Your task to perform on an android device: Clear the shopping cart on walmart.com. Add "razer naga" to the cart on walmart.com Image 0: 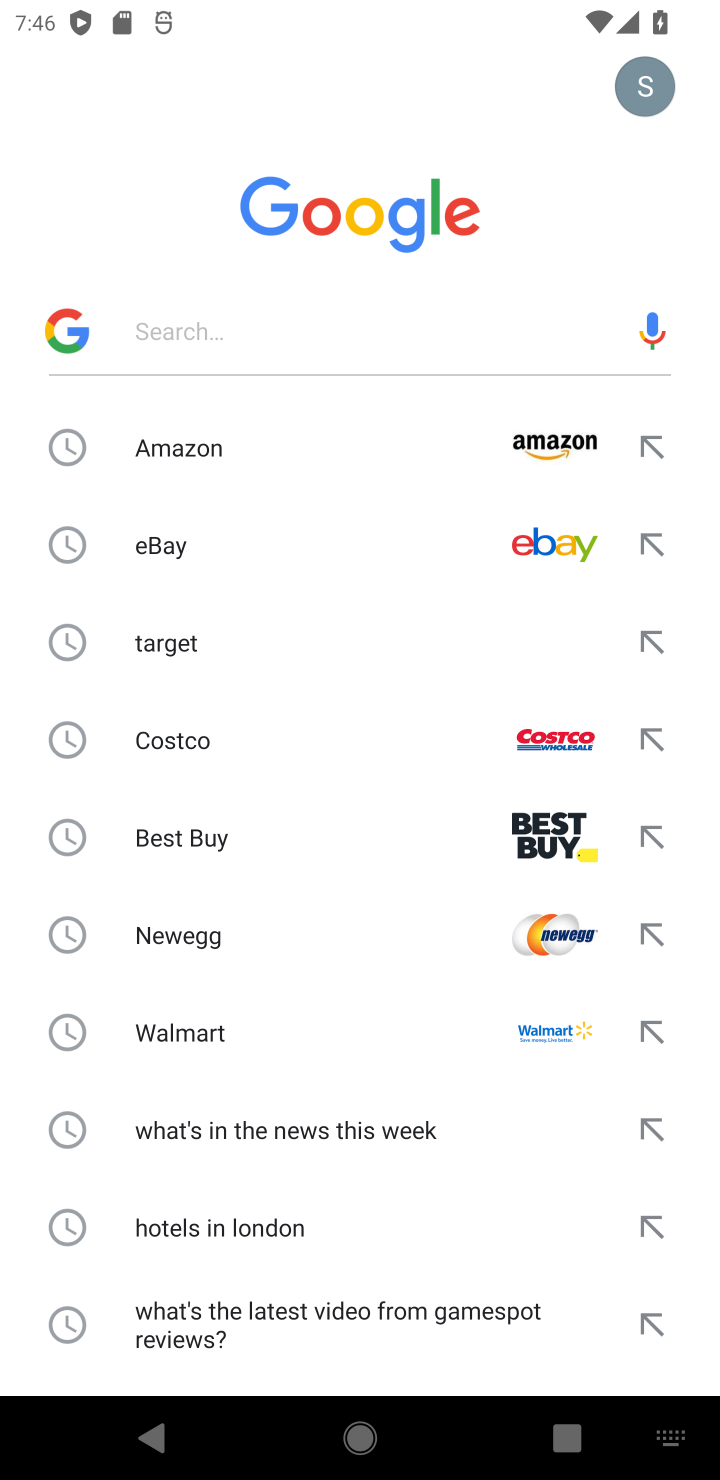
Step 0: type "walmart.com"
Your task to perform on an android device: Clear the shopping cart on walmart.com. Add "razer naga" to the cart on walmart.com Image 1: 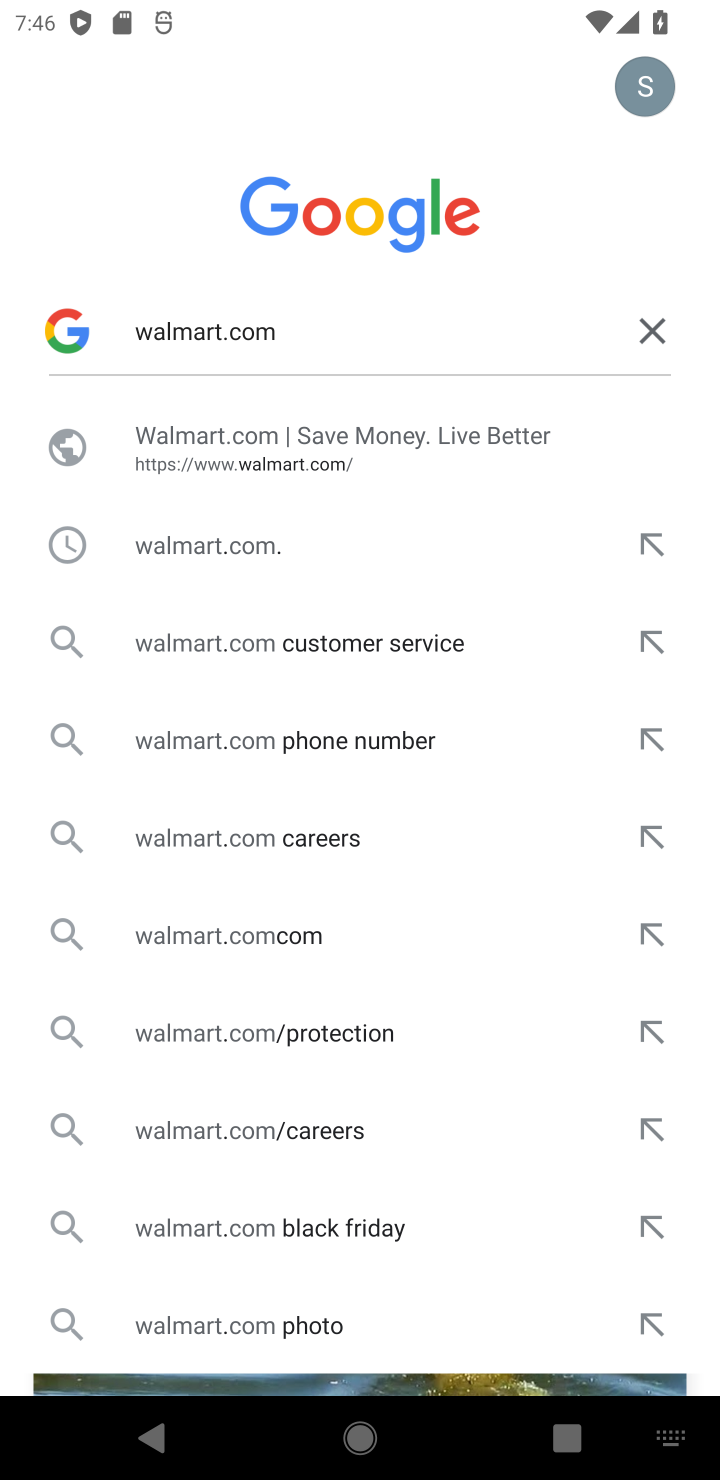
Step 1: click (225, 437)
Your task to perform on an android device: Clear the shopping cart on walmart.com. Add "razer naga" to the cart on walmart.com Image 2: 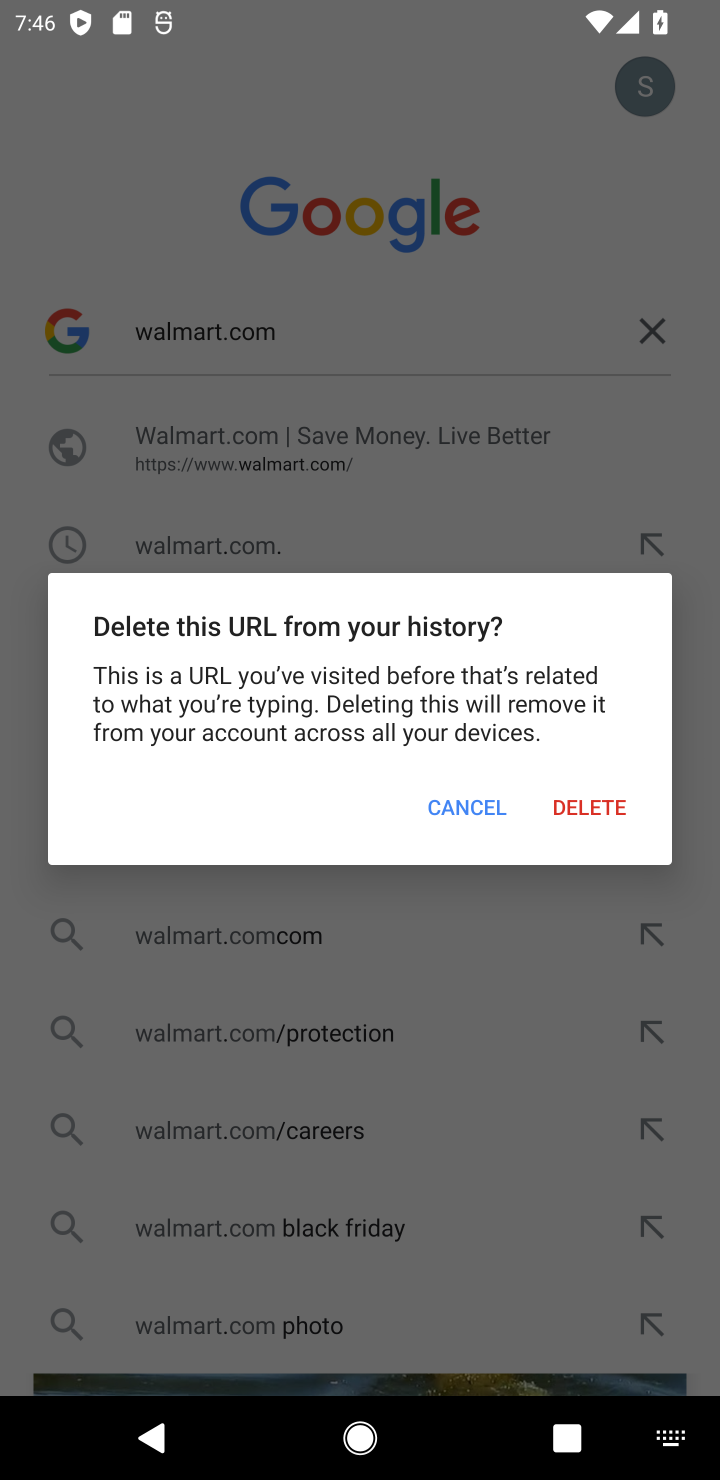
Step 2: click (465, 820)
Your task to perform on an android device: Clear the shopping cart on walmart.com. Add "razer naga" to the cart on walmart.com Image 3: 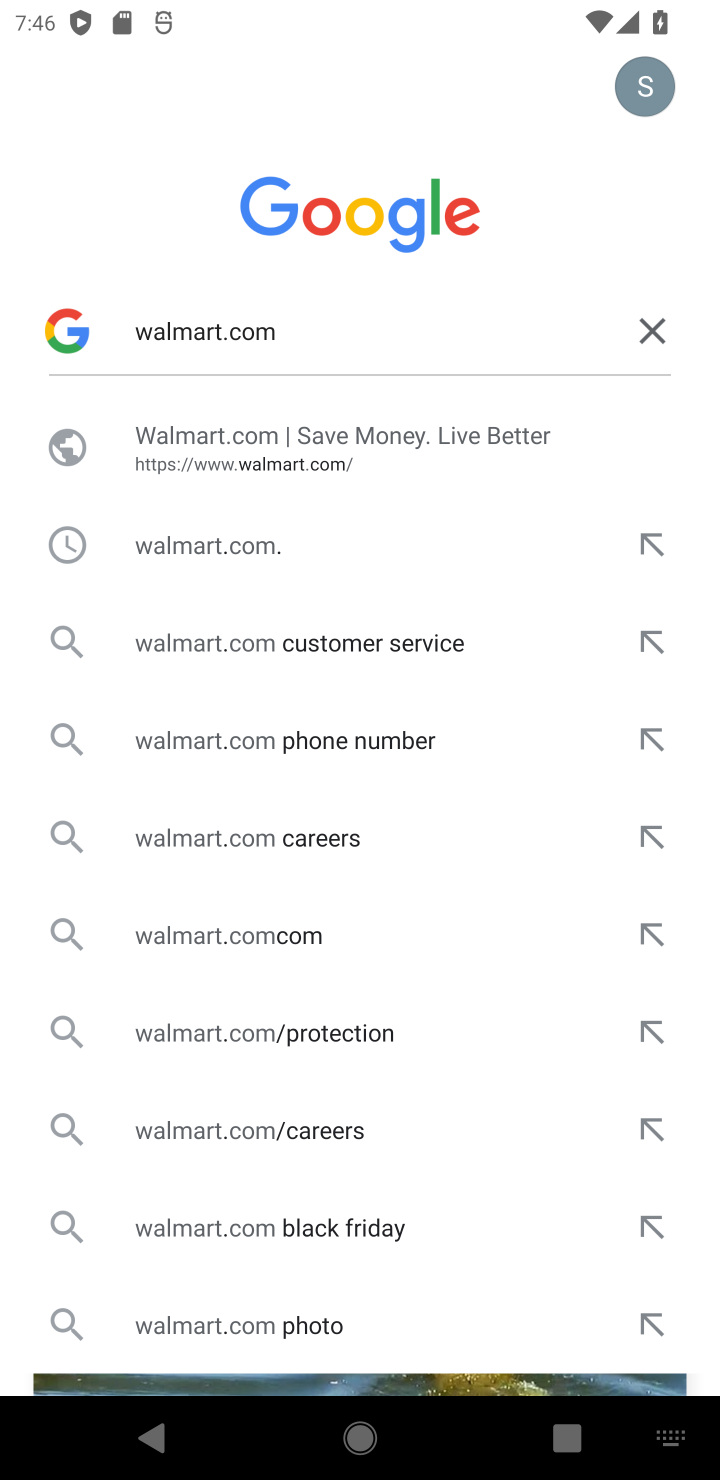
Step 3: click (171, 463)
Your task to perform on an android device: Clear the shopping cart on walmart.com. Add "razer naga" to the cart on walmart.com Image 4: 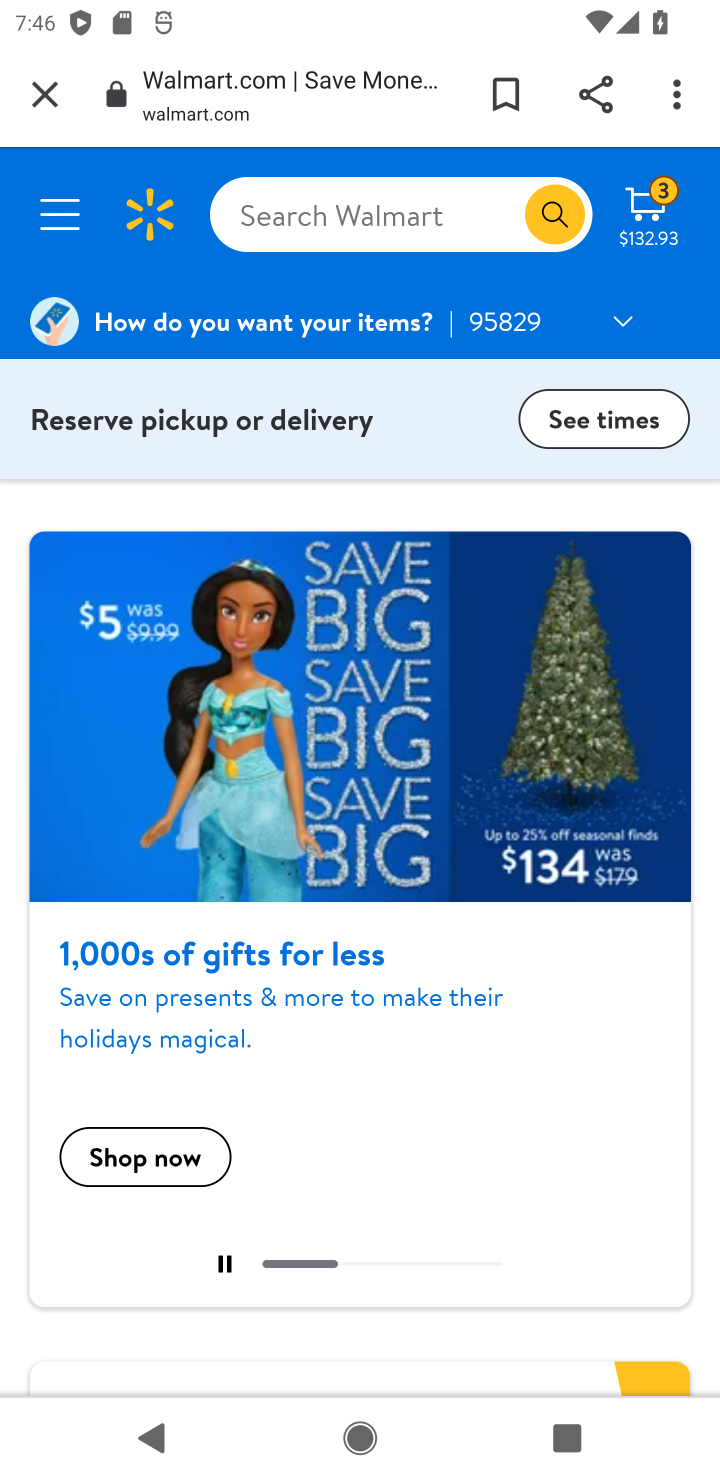
Step 4: click (643, 215)
Your task to perform on an android device: Clear the shopping cart on walmart.com. Add "razer naga" to the cart on walmart.com Image 5: 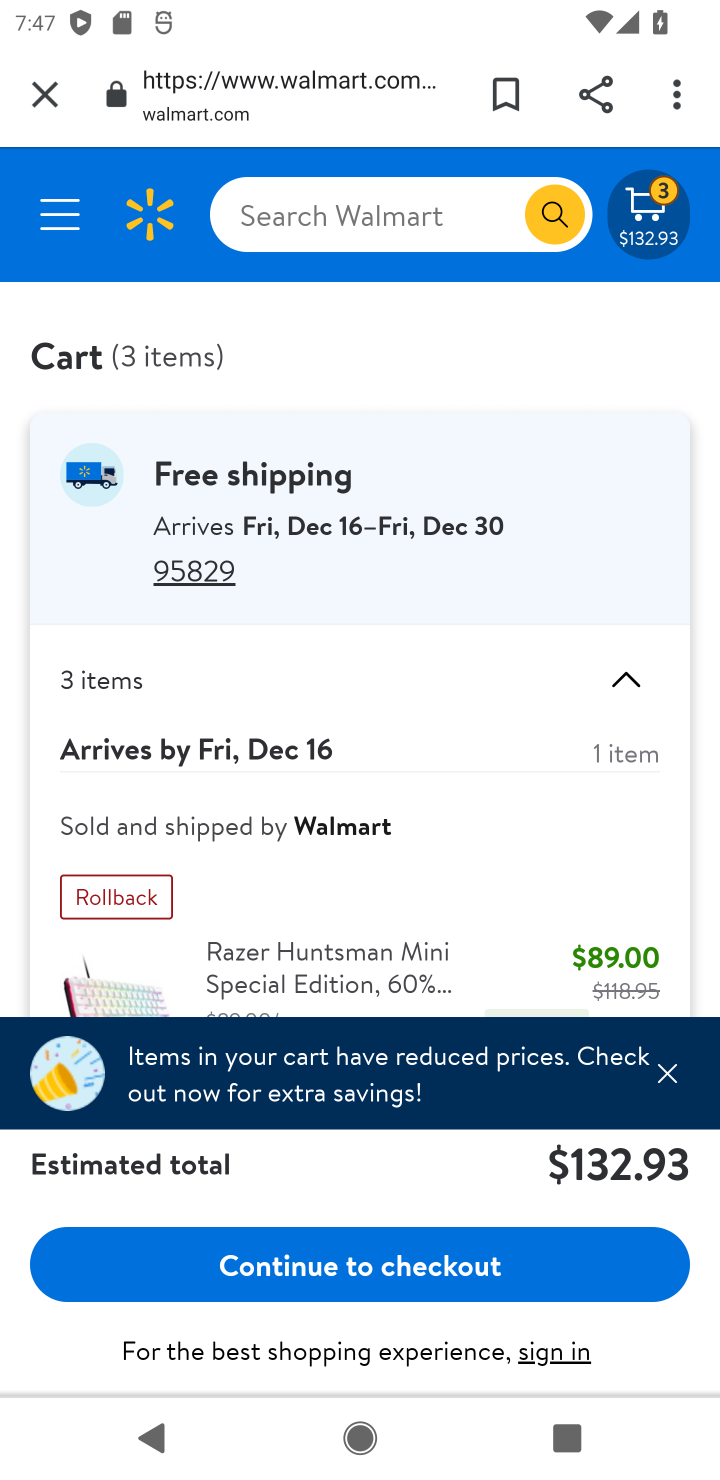
Step 5: drag from (360, 783) to (356, 305)
Your task to perform on an android device: Clear the shopping cart on walmart.com. Add "razer naga" to the cart on walmart.com Image 6: 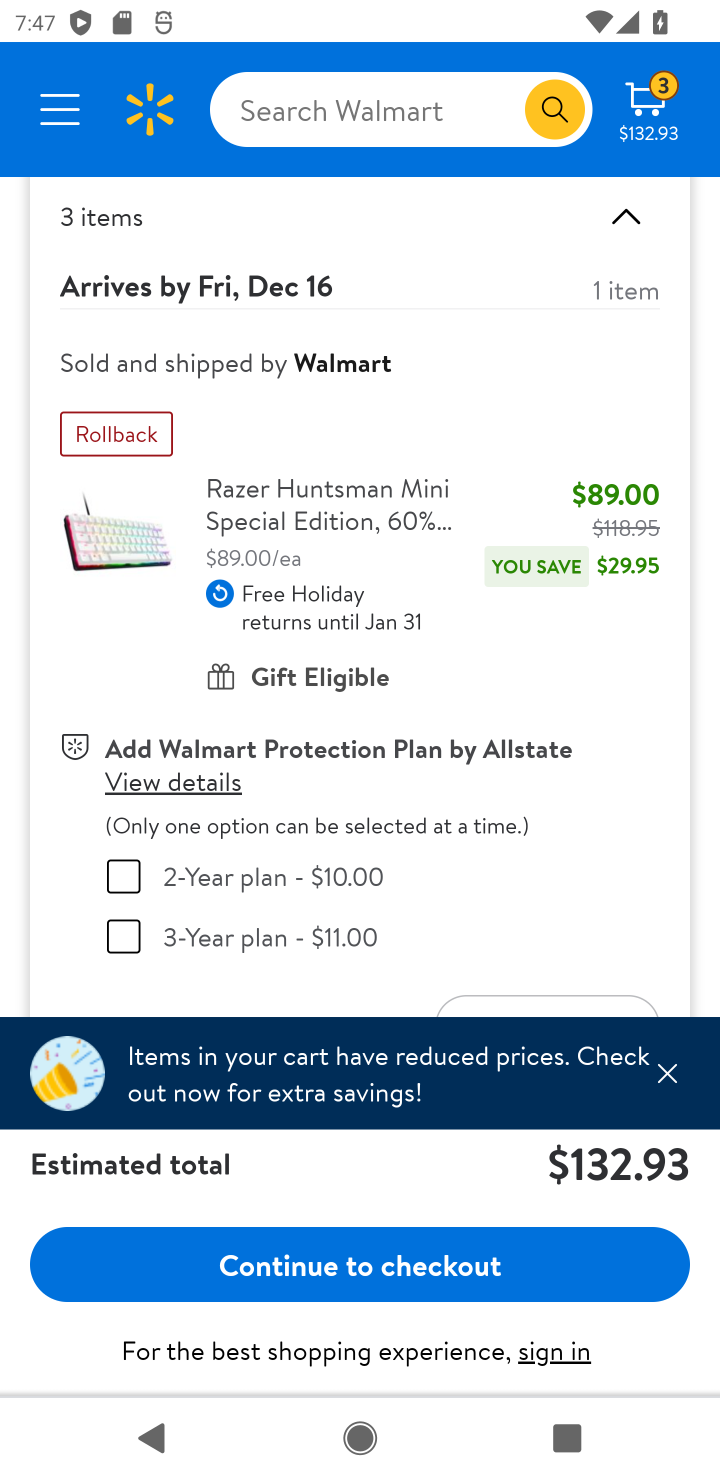
Step 6: drag from (321, 657) to (325, 228)
Your task to perform on an android device: Clear the shopping cart on walmart.com. Add "razer naga" to the cart on walmart.com Image 7: 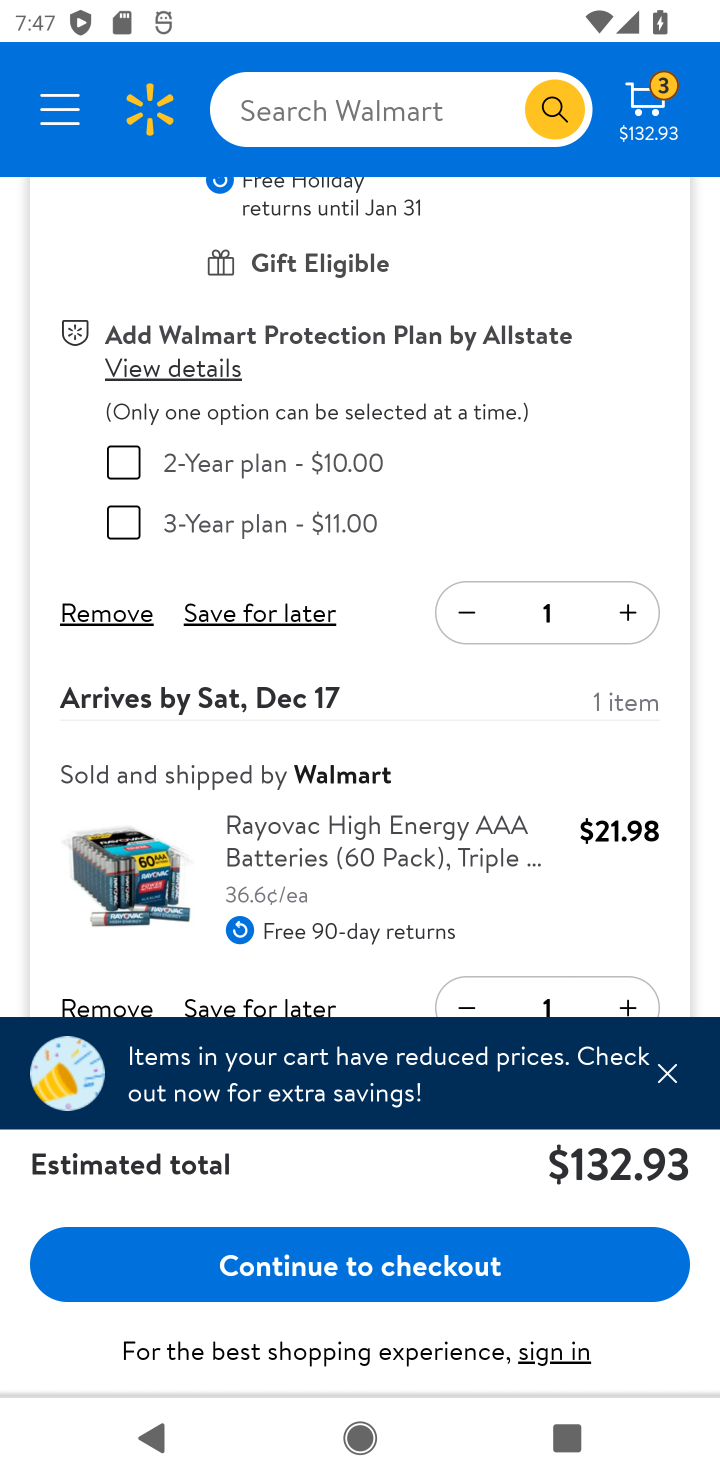
Step 7: click (87, 619)
Your task to perform on an android device: Clear the shopping cart on walmart.com. Add "razer naga" to the cart on walmart.com Image 8: 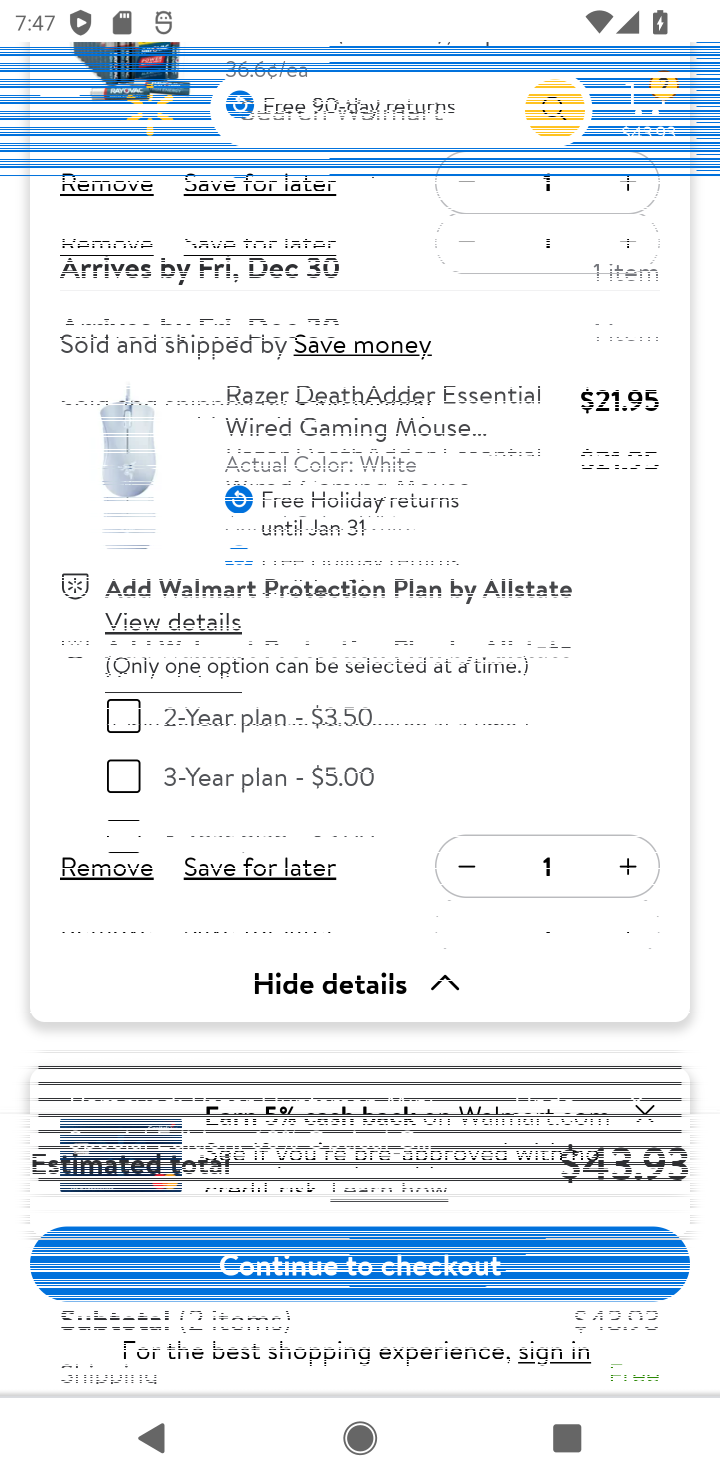
Step 8: click (106, 873)
Your task to perform on an android device: Clear the shopping cart on walmart.com. Add "razer naga" to the cart on walmart.com Image 9: 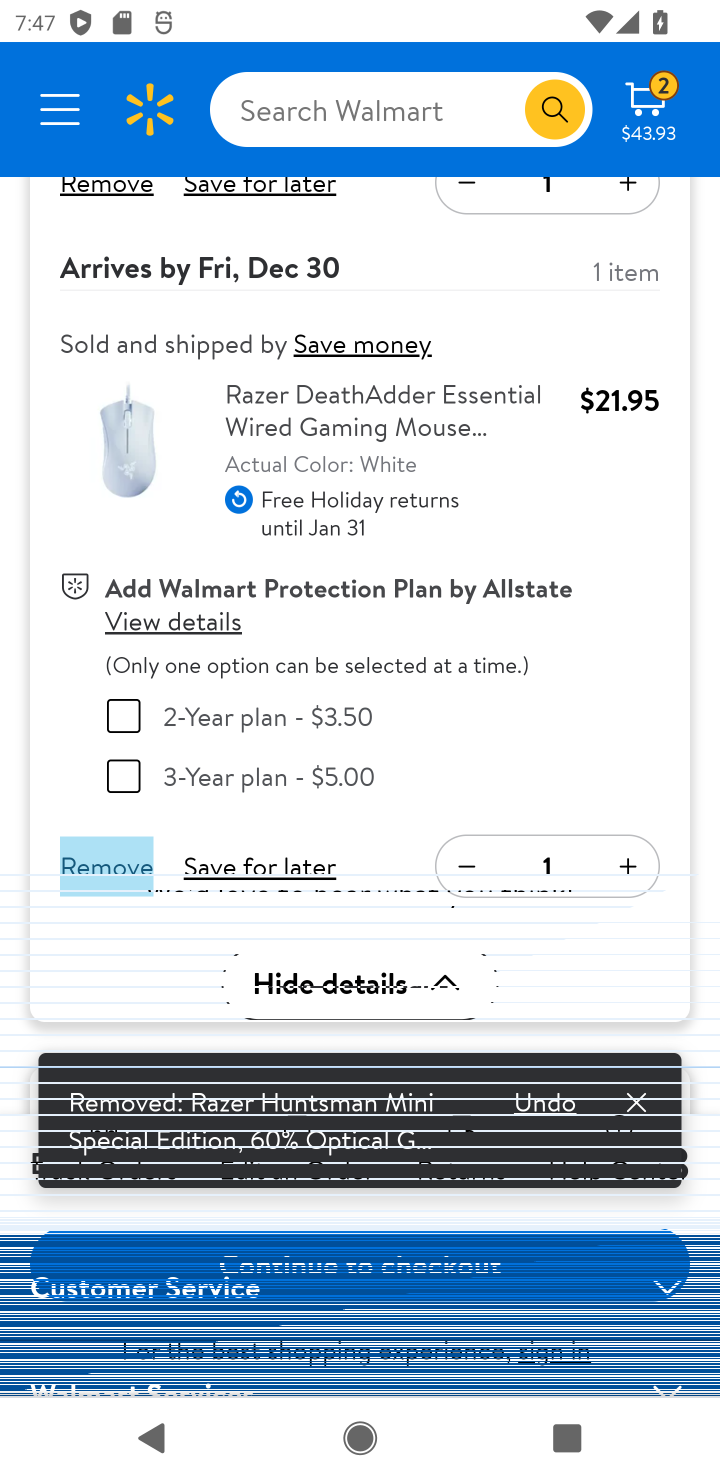
Step 9: drag from (284, 821) to (300, 424)
Your task to perform on an android device: Clear the shopping cart on walmart.com. Add "razer naga" to the cart on walmart.com Image 10: 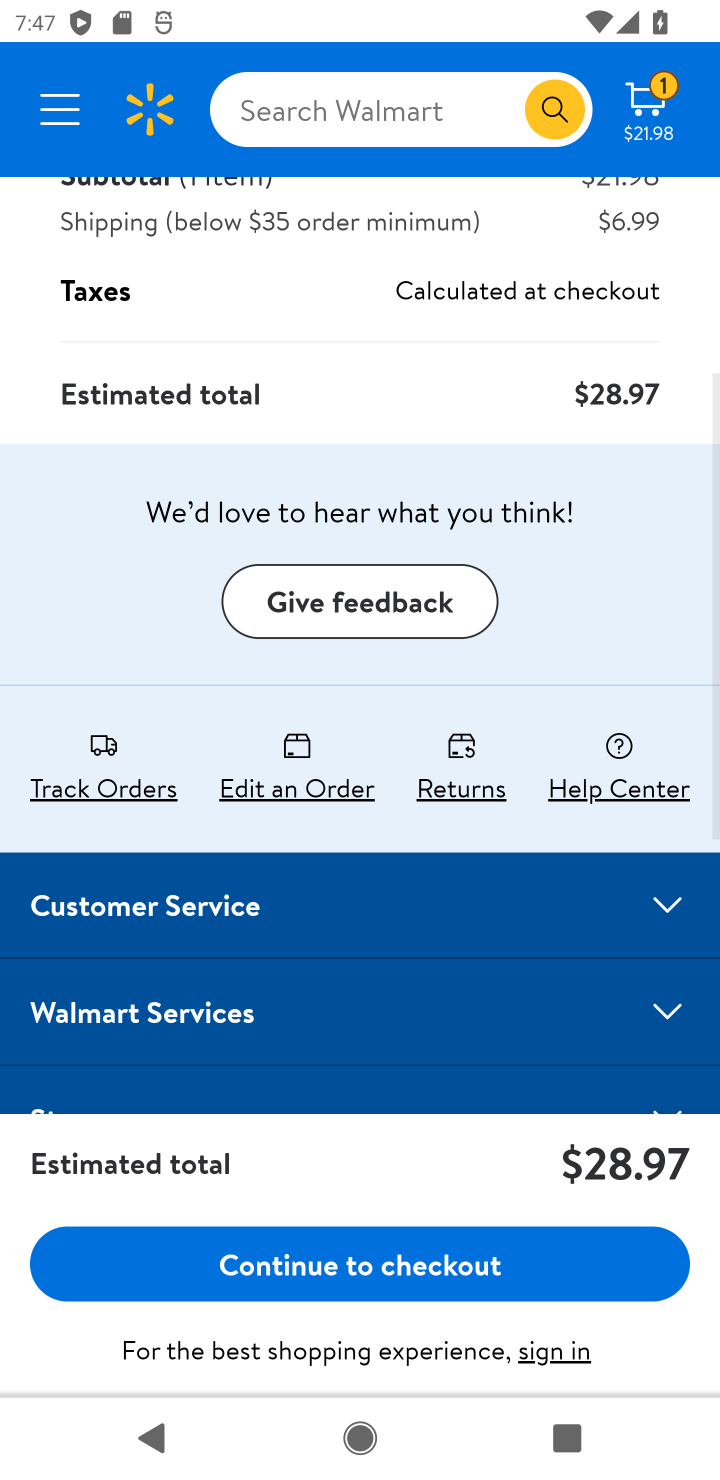
Step 10: drag from (285, 445) to (298, 1126)
Your task to perform on an android device: Clear the shopping cart on walmart.com. Add "razer naga" to the cart on walmart.com Image 11: 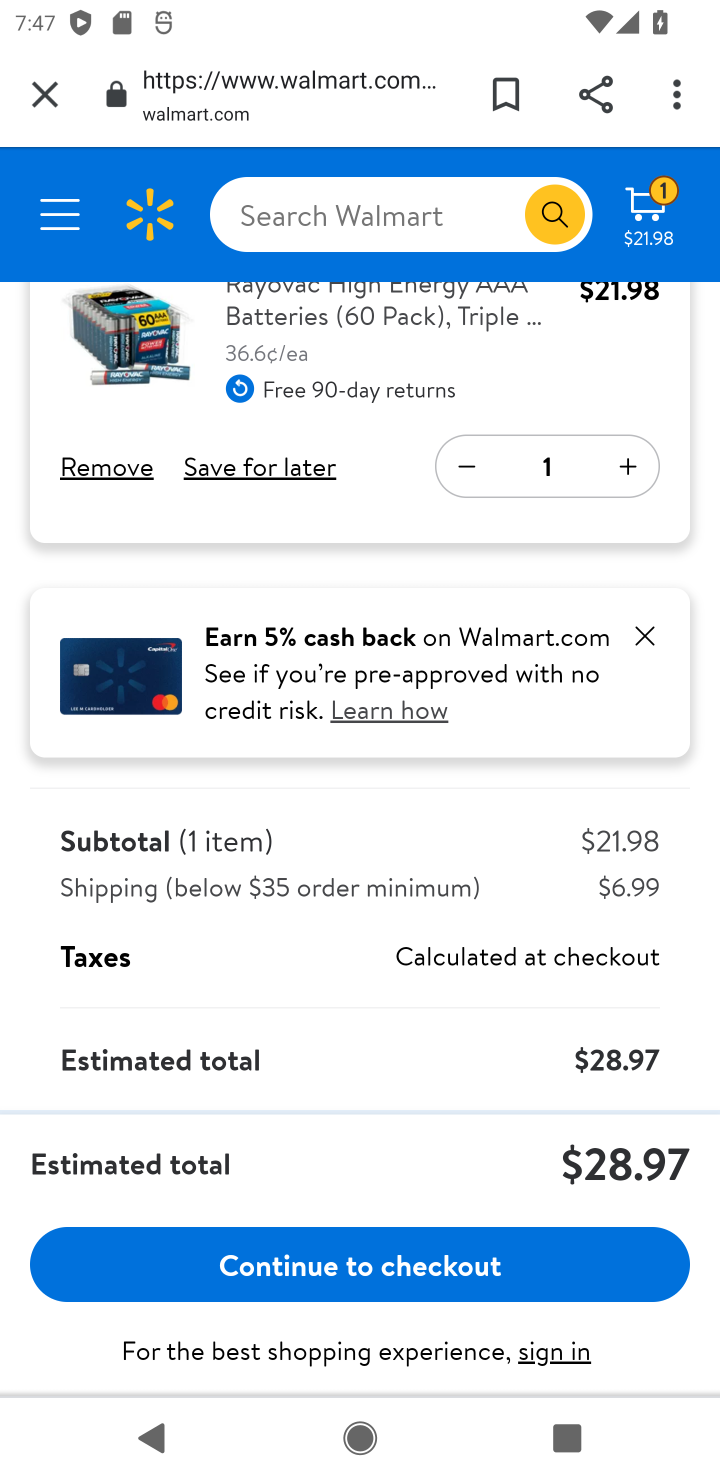
Step 11: click (77, 477)
Your task to perform on an android device: Clear the shopping cart on walmart.com. Add "razer naga" to the cart on walmart.com Image 12: 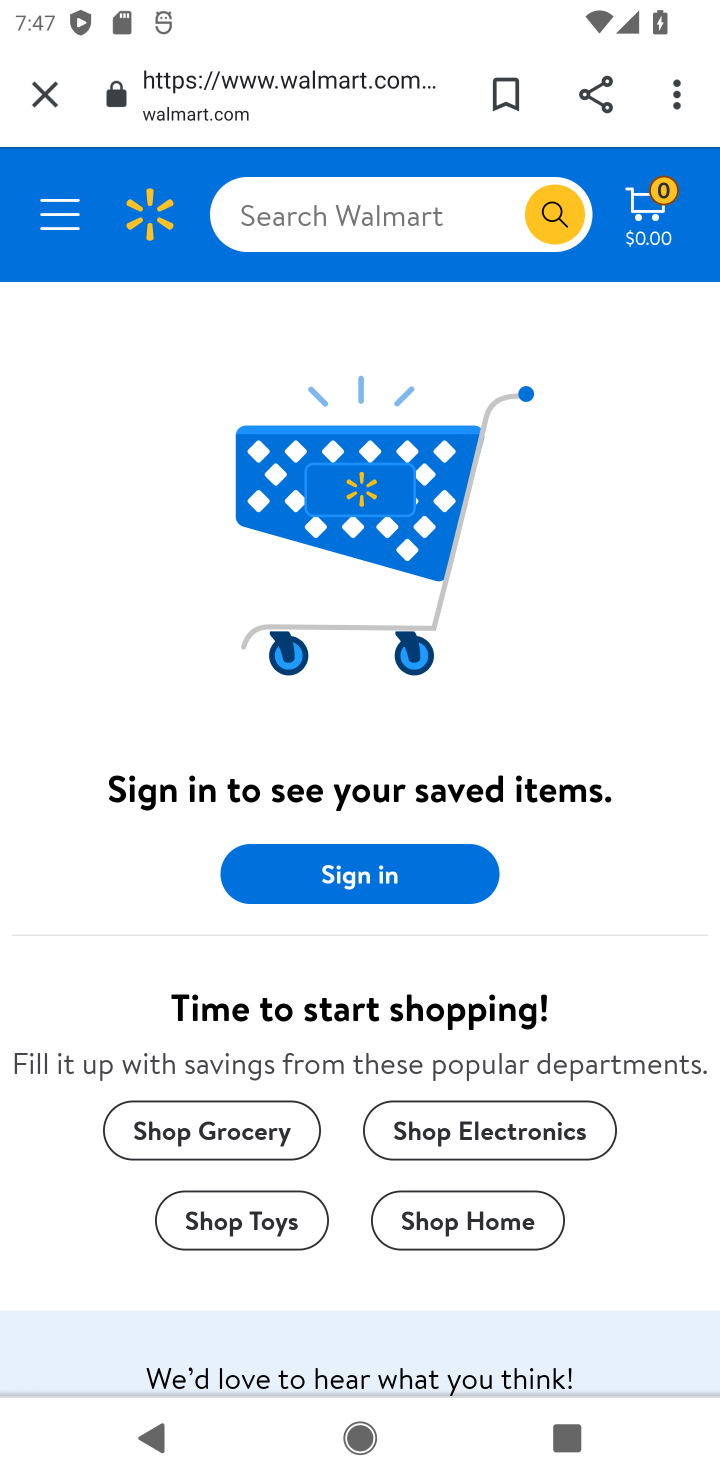
Step 12: click (317, 208)
Your task to perform on an android device: Clear the shopping cart on walmart.com. Add "razer naga" to the cart on walmart.com Image 13: 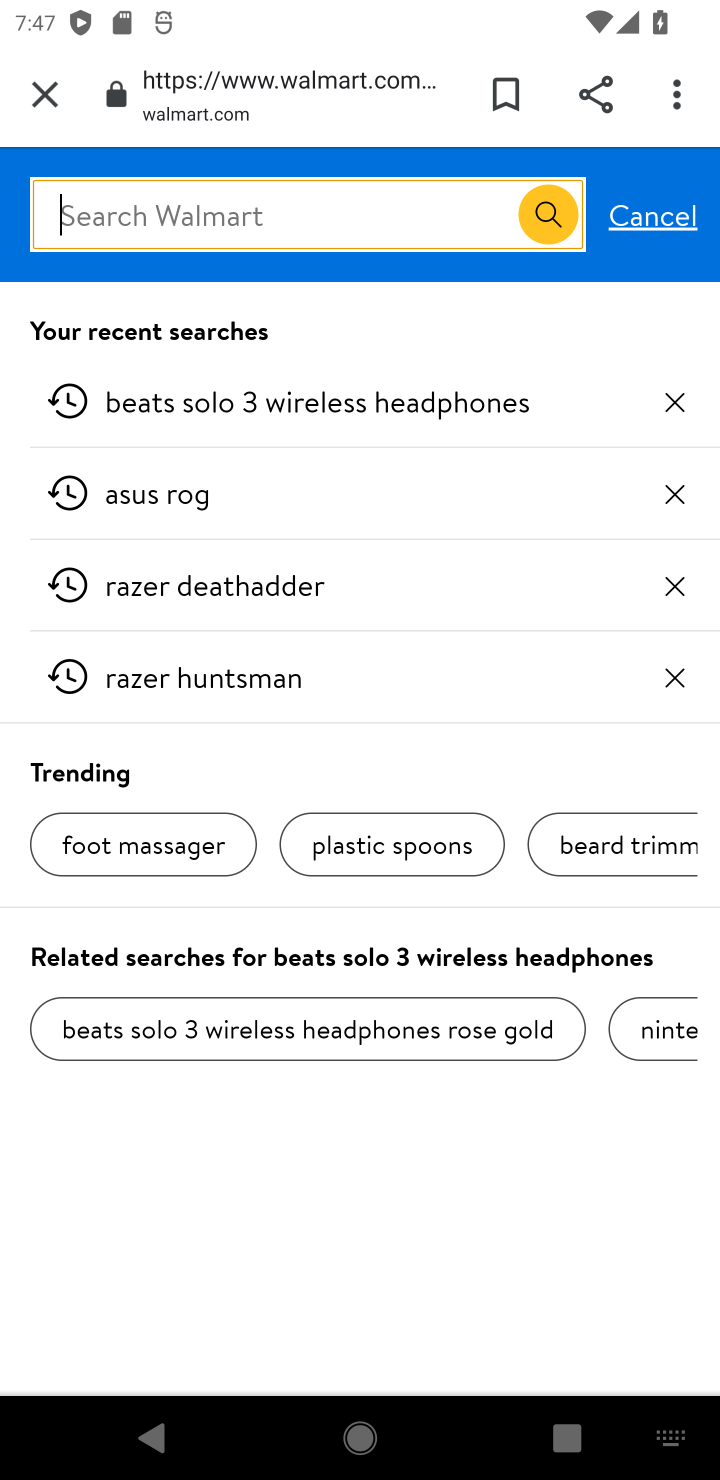
Step 13: type "razer naga"
Your task to perform on an android device: Clear the shopping cart on walmart.com. Add "razer naga" to the cart on walmart.com Image 14: 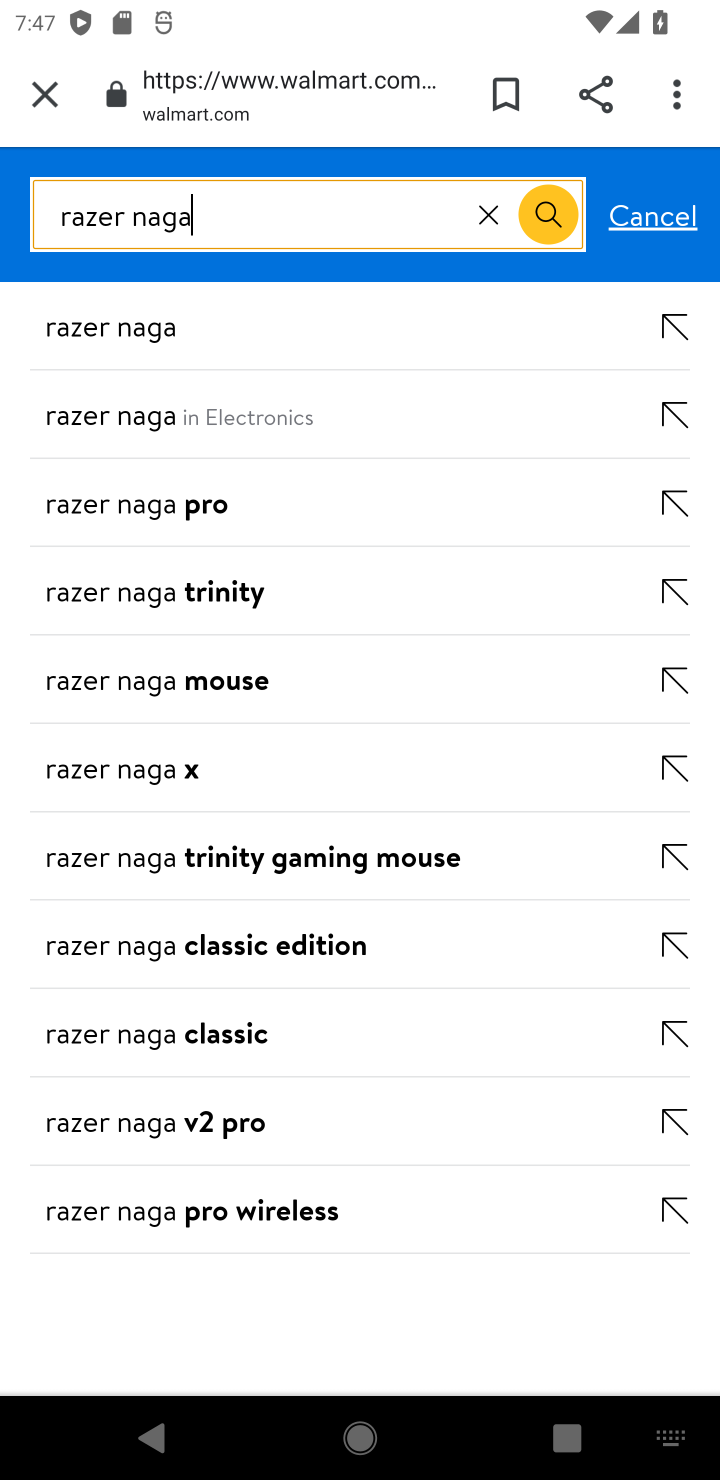
Step 14: click (117, 341)
Your task to perform on an android device: Clear the shopping cart on walmart.com. Add "razer naga" to the cart on walmart.com Image 15: 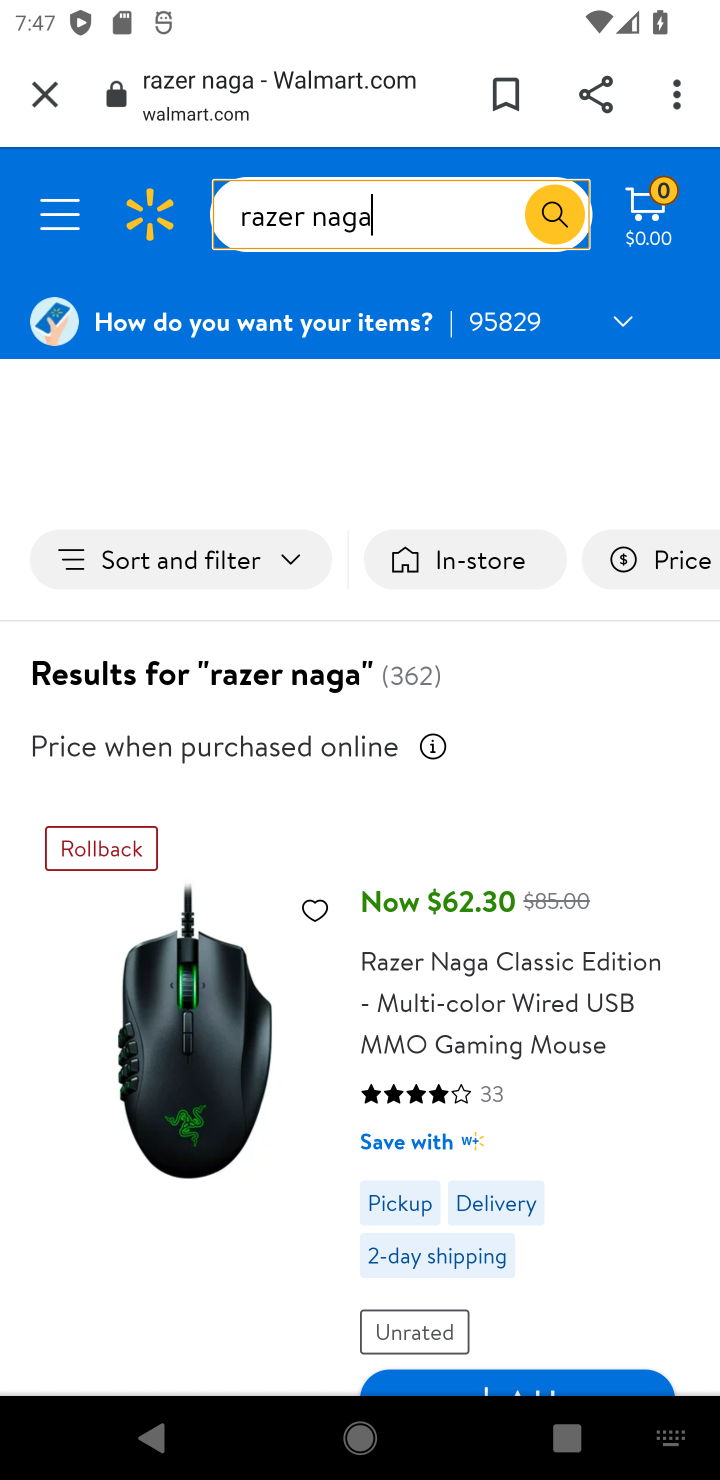
Step 15: drag from (376, 1071) to (366, 446)
Your task to perform on an android device: Clear the shopping cart on walmart.com. Add "razer naga" to the cart on walmart.com Image 16: 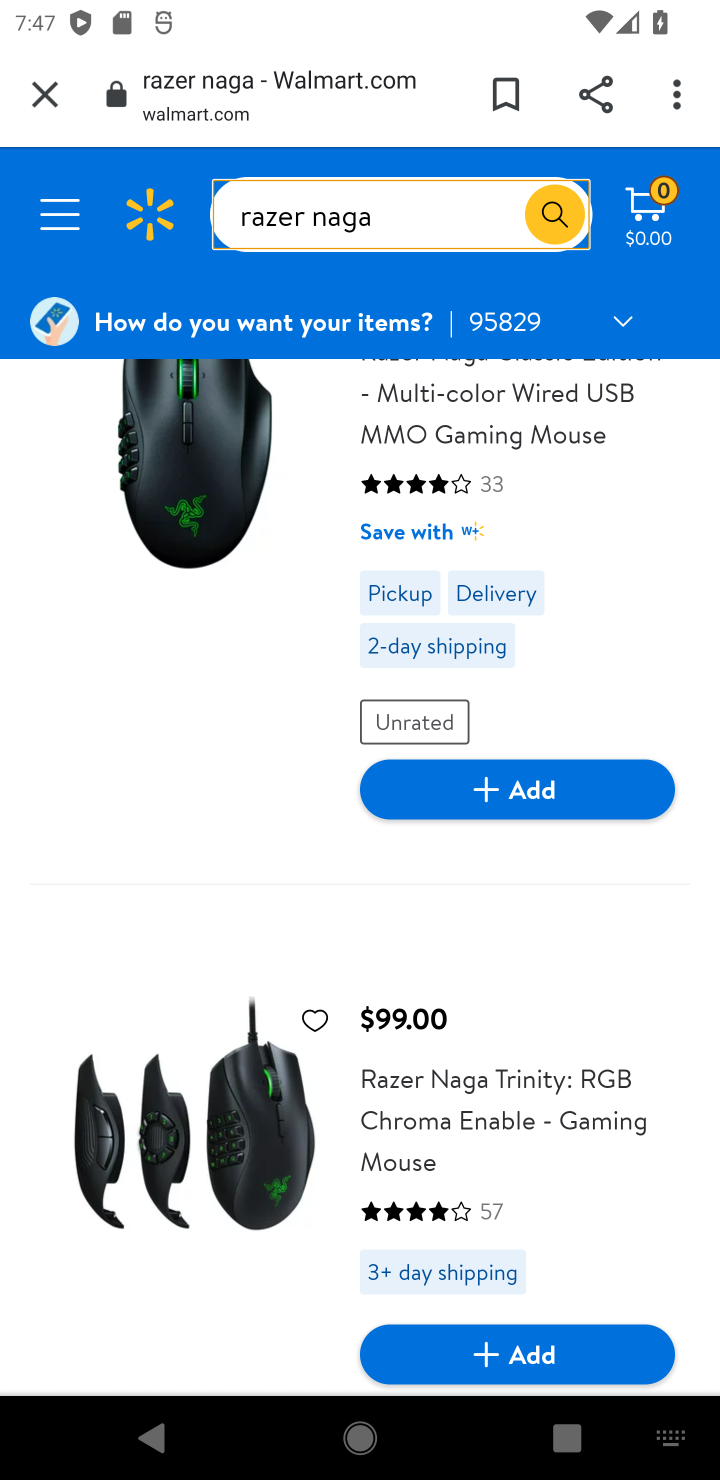
Step 16: click (524, 797)
Your task to perform on an android device: Clear the shopping cart on walmart.com. Add "razer naga" to the cart on walmart.com Image 17: 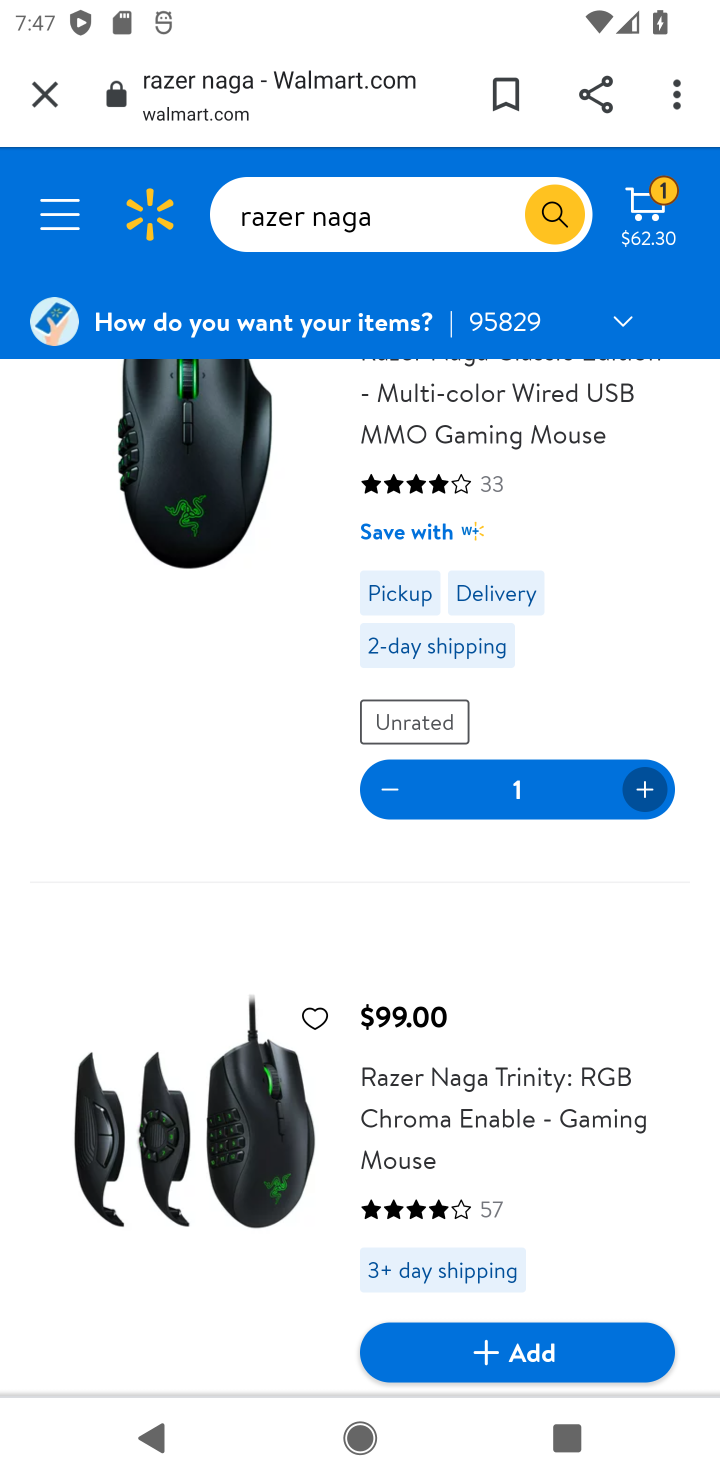
Step 17: task complete